Your task to perform on an android device: Open ESPN.com Image 0: 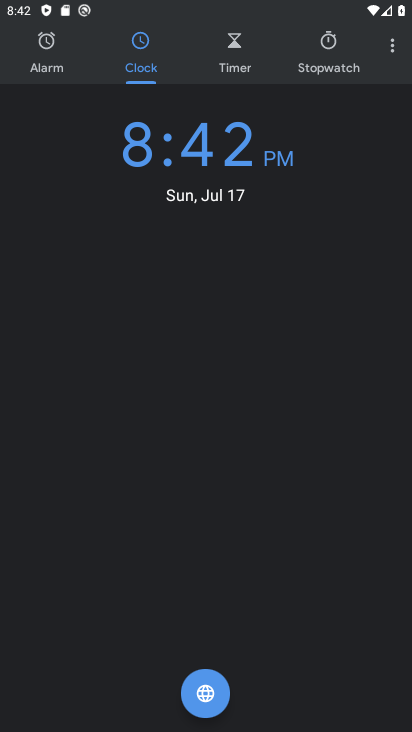
Step 0: press home button
Your task to perform on an android device: Open ESPN.com Image 1: 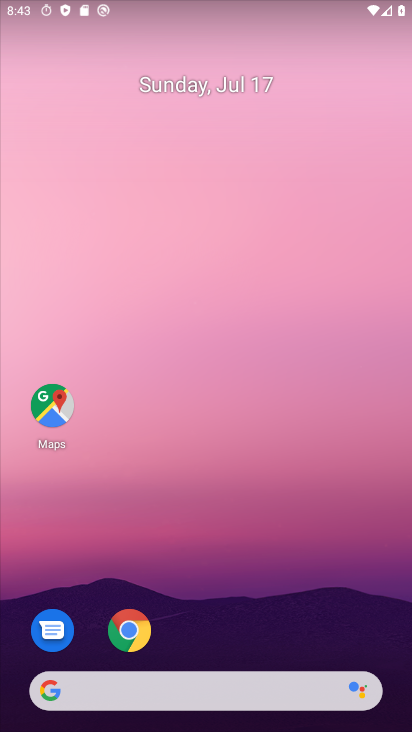
Step 1: click (88, 693)
Your task to perform on an android device: Open ESPN.com Image 2: 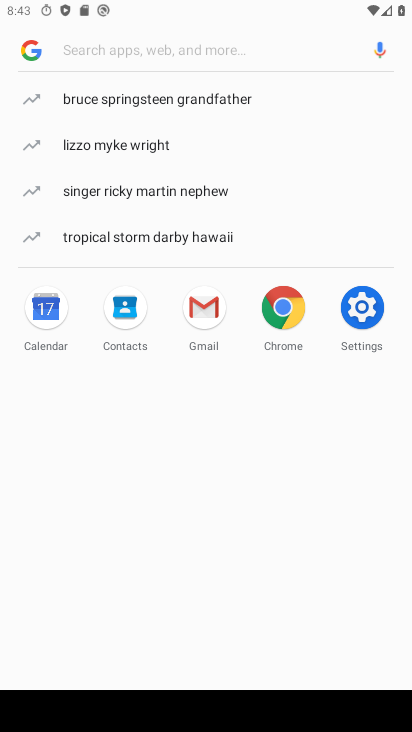
Step 2: click (84, 44)
Your task to perform on an android device: Open ESPN.com Image 3: 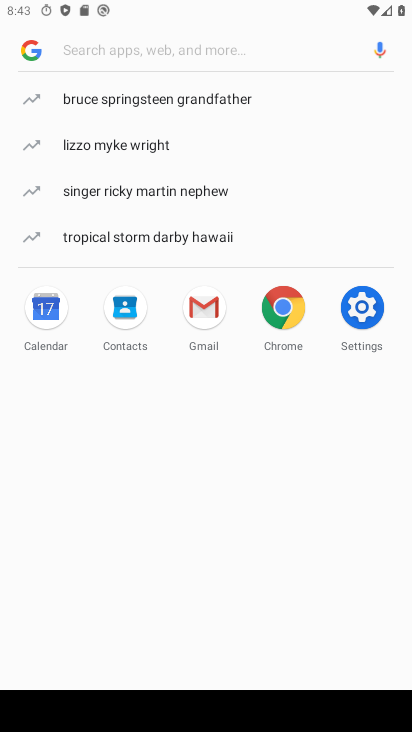
Step 3: type " ESPN.com"
Your task to perform on an android device: Open ESPN.com Image 4: 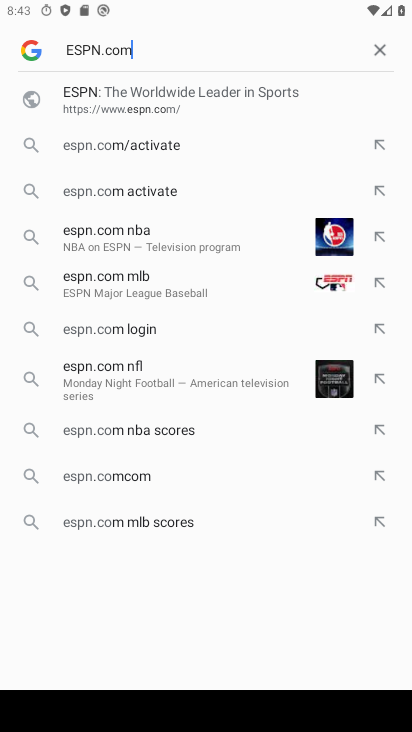
Step 4: type ""
Your task to perform on an android device: Open ESPN.com Image 5: 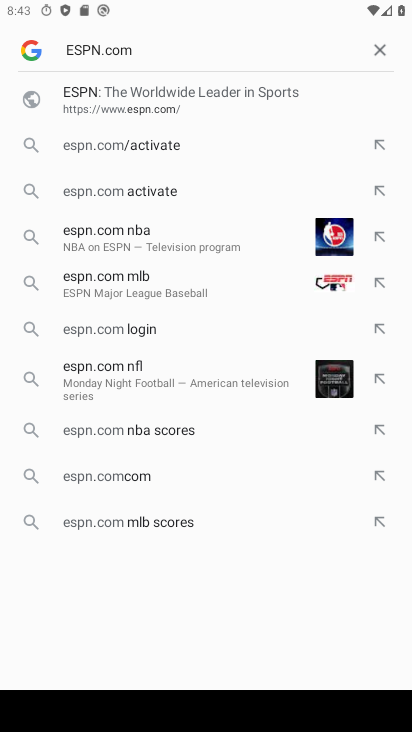
Step 5: type ""
Your task to perform on an android device: Open ESPN.com Image 6: 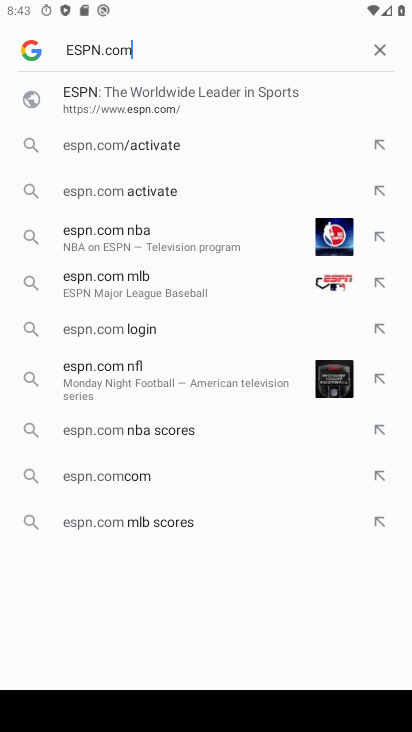
Step 6: type ""
Your task to perform on an android device: Open ESPN.com Image 7: 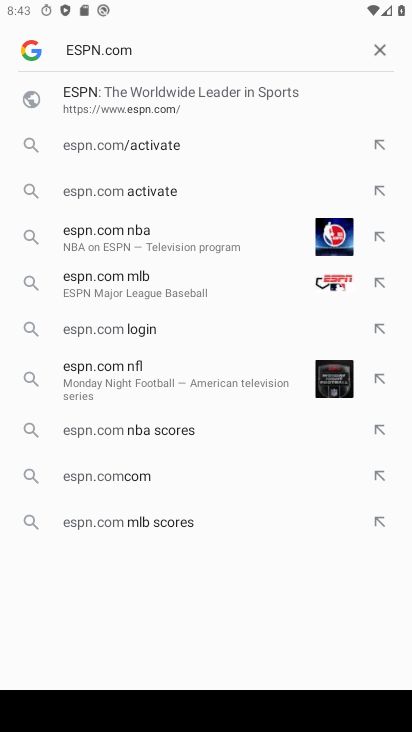
Step 7: type ""
Your task to perform on an android device: Open ESPN.com Image 8: 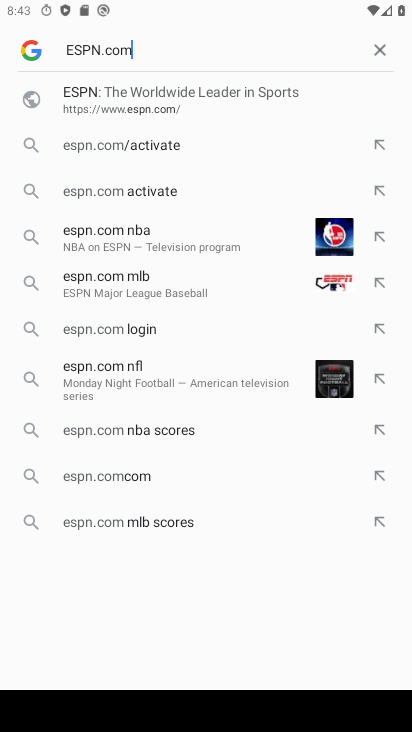
Step 8: type ""
Your task to perform on an android device: Open ESPN.com Image 9: 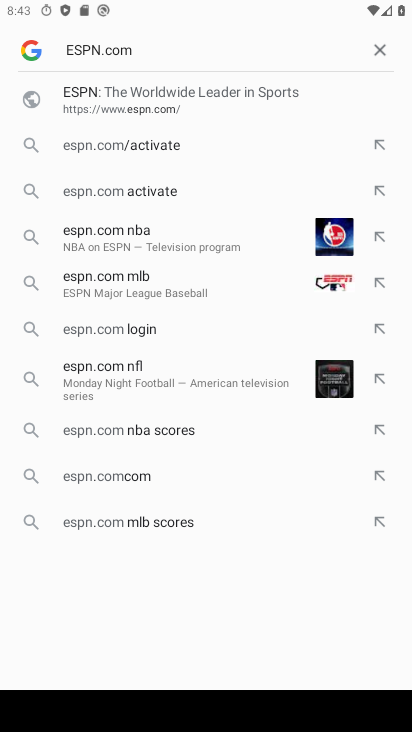
Step 9: type ""
Your task to perform on an android device: Open ESPN.com Image 10: 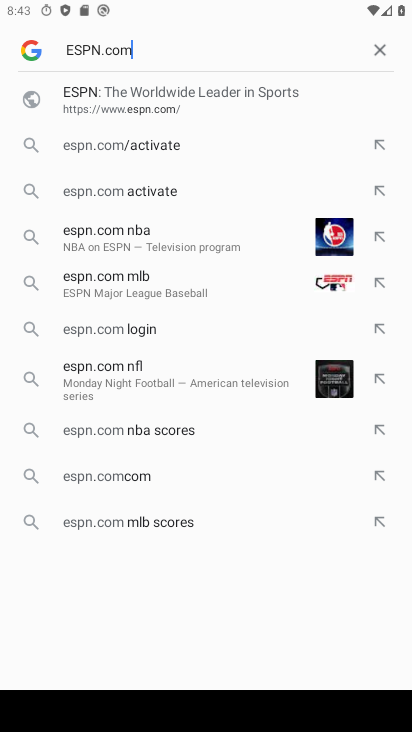
Step 10: task complete